Your task to perform on an android device: delete a single message in the gmail app Image 0: 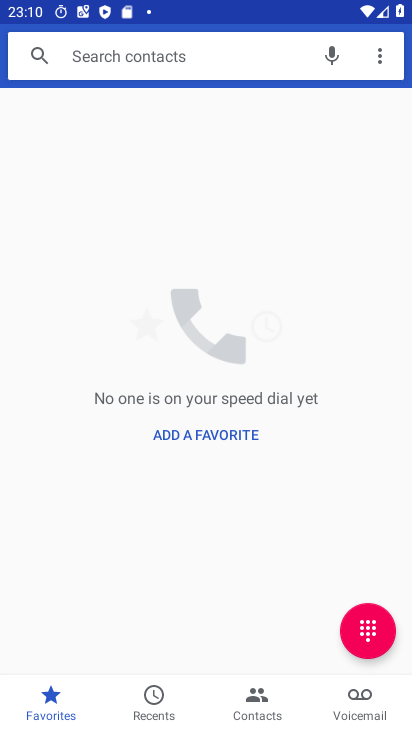
Step 0: press home button
Your task to perform on an android device: delete a single message in the gmail app Image 1: 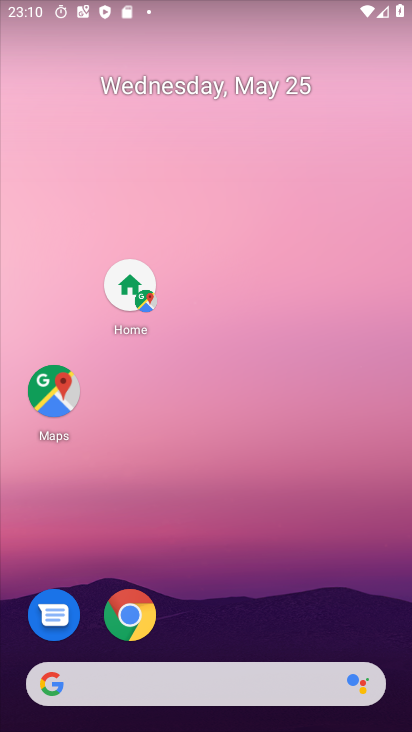
Step 1: drag from (240, 564) to (233, 126)
Your task to perform on an android device: delete a single message in the gmail app Image 2: 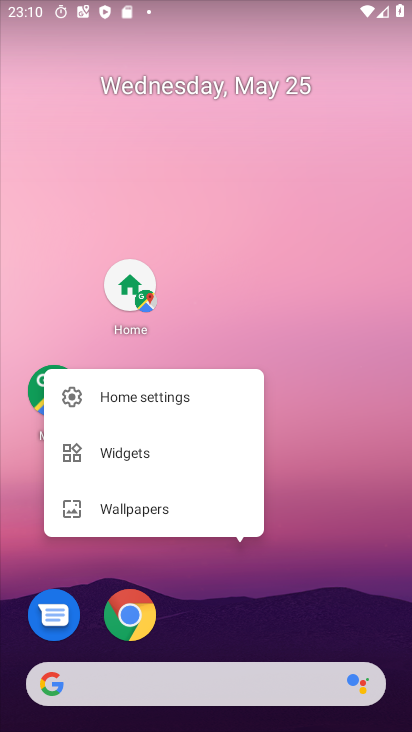
Step 2: drag from (313, 545) to (226, 55)
Your task to perform on an android device: delete a single message in the gmail app Image 3: 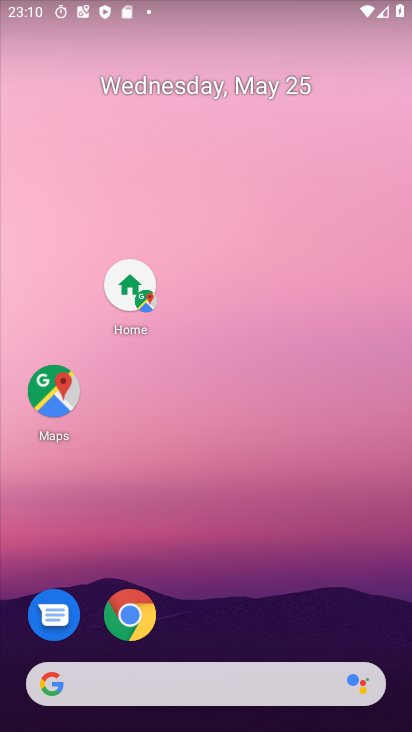
Step 3: drag from (216, 637) to (196, 43)
Your task to perform on an android device: delete a single message in the gmail app Image 4: 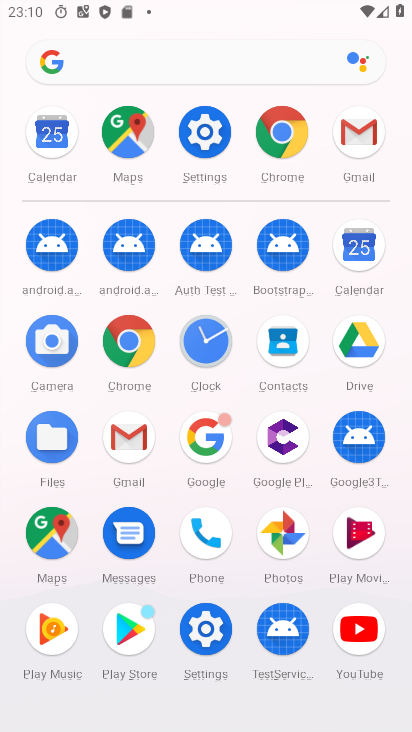
Step 4: click (119, 430)
Your task to perform on an android device: delete a single message in the gmail app Image 5: 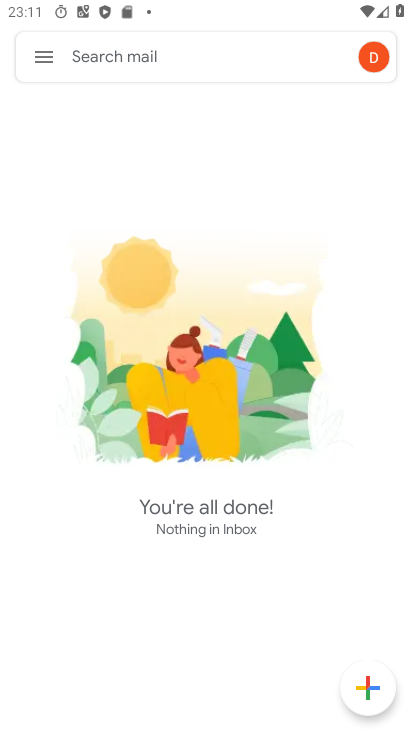
Step 5: task complete